Your task to perform on an android device: Search for sushi restaurants on Maps Image 0: 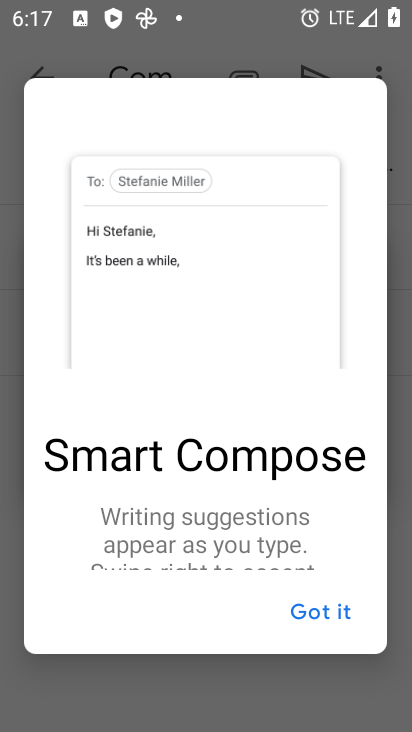
Step 0: press home button
Your task to perform on an android device: Search for sushi restaurants on Maps Image 1: 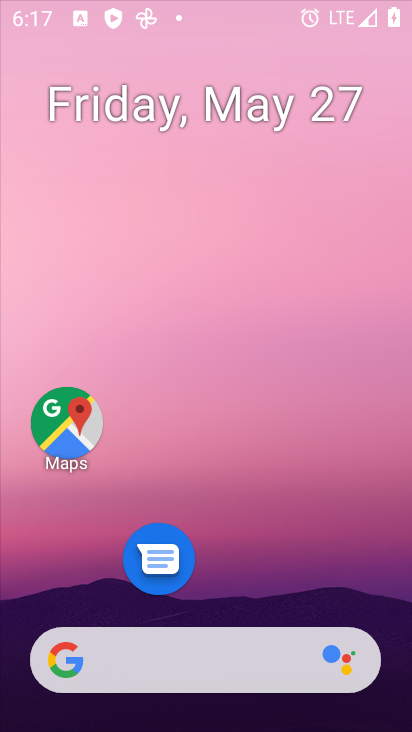
Step 1: drag from (257, 706) to (369, 74)
Your task to perform on an android device: Search for sushi restaurants on Maps Image 2: 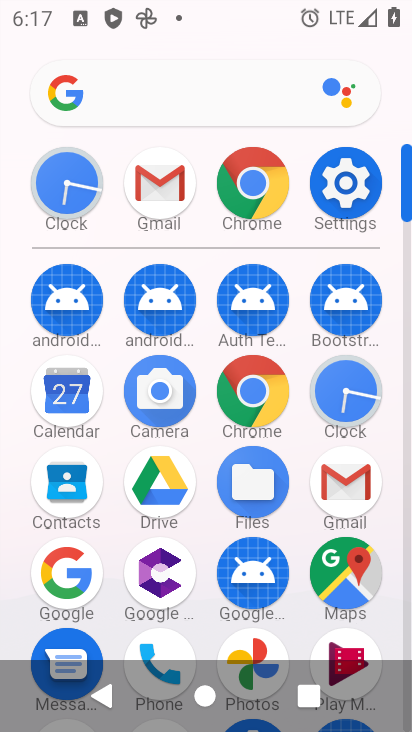
Step 2: click (335, 562)
Your task to perform on an android device: Search for sushi restaurants on Maps Image 3: 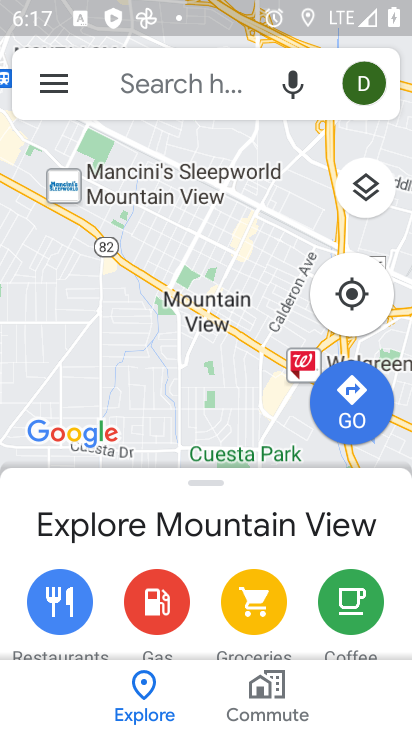
Step 3: click (168, 61)
Your task to perform on an android device: Search for sushi restaurants on Maps Image 4: 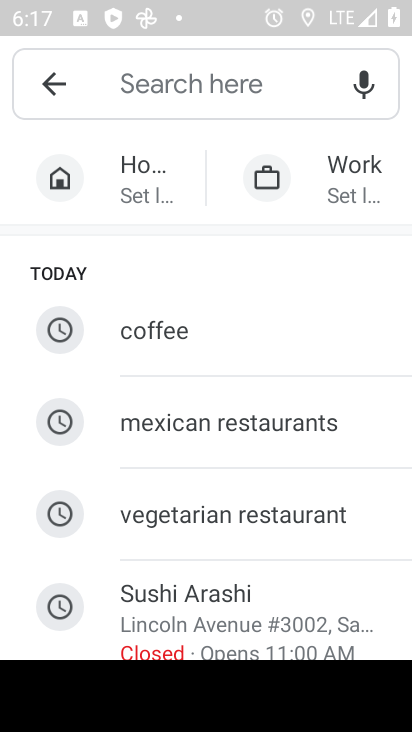
Step 4: type "sushi reaturant"
Your task to perform on an android device: Search for sushi restaurants on Maps Image 5: 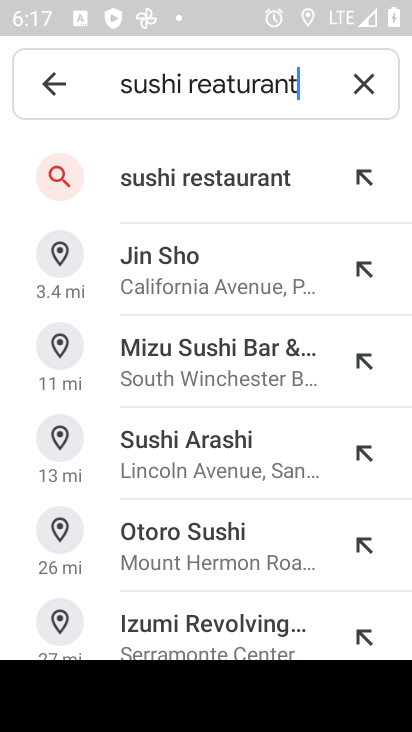
Step 5: click (256, 183)
Your task to perform on an android device: Search for sushi restaurants on Maps Image 6: 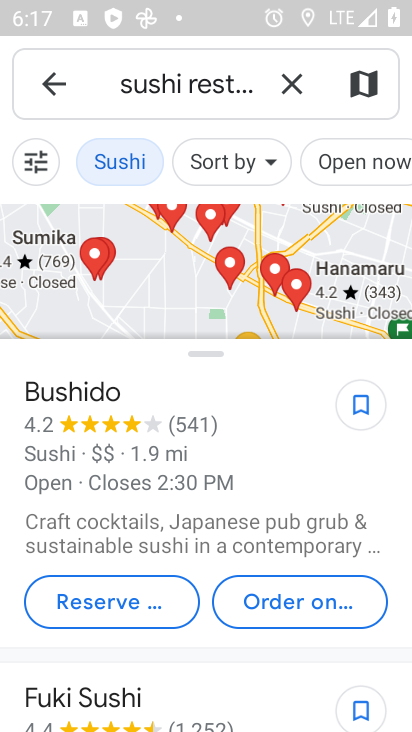
Step 6: task complete